Your task to perform on an android device: Set an alarm for 8am Image 0: 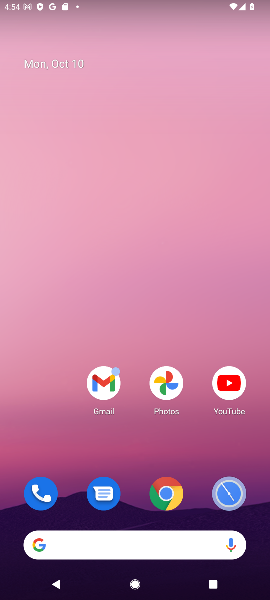
Step 0: click (139, 550)
Your task to perform on an android device: Set an alarm for 8am Image 1: 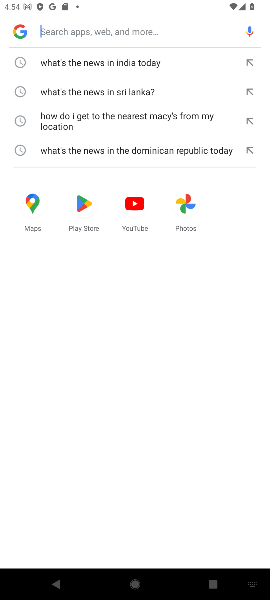
Step 1: type "Set an alarm for 8am"
Your task to perform on an android device: Set an alarm for 8am Image 2: 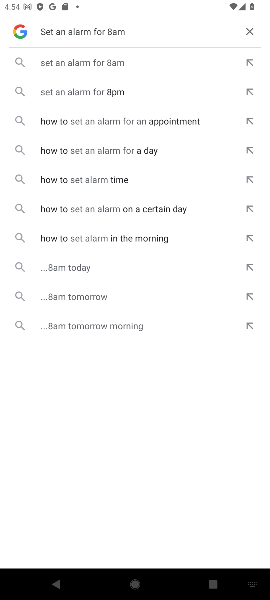
Step 2: click (55, 64)
Your task to perform on an android device: Set an alarm for 8am Image 3: 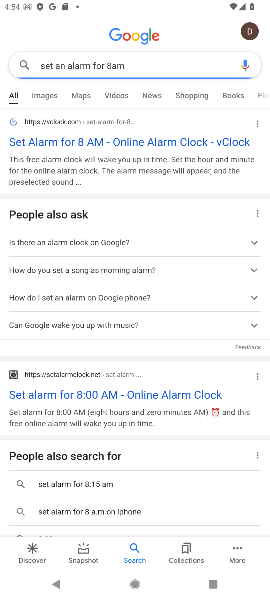
Step 3: task complete